Your task to perform on an android device: toggle airplane mode Image 0: 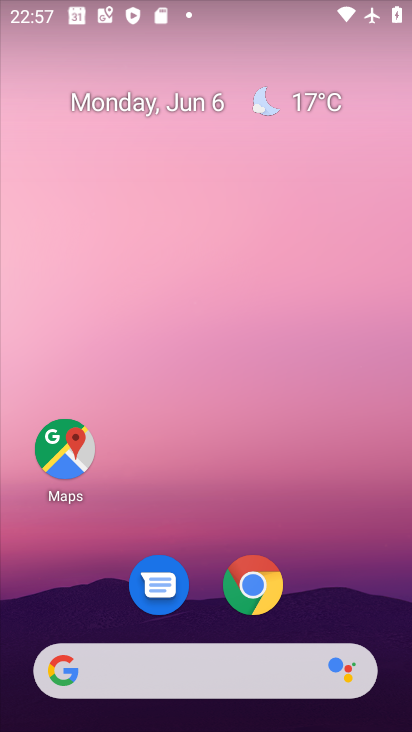
Step 0: drag from (220, 493) to (261, 0)
Your task to perform on an android device: toggle airplane mode Image 1: 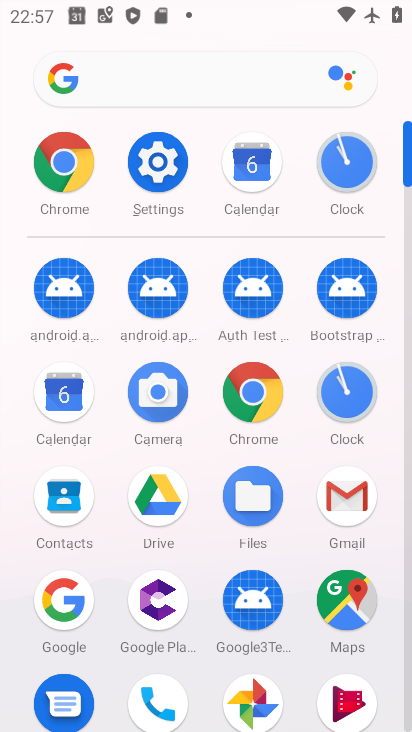
Step 1: click (167, 172)
Your task to perform on an android device: toggle airplane mode Image 2: 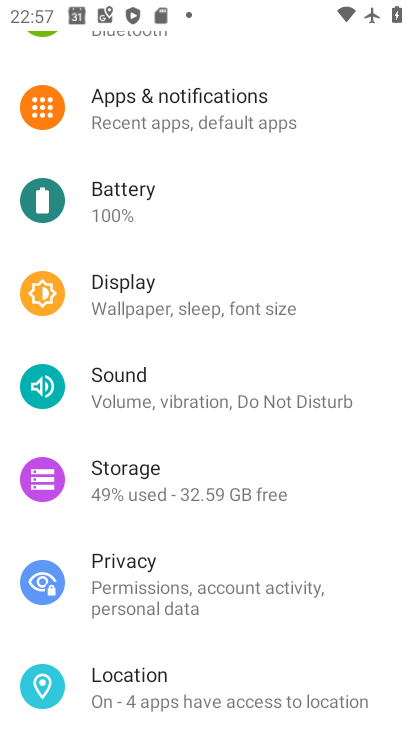
Step 2: drag from (210, 214) to (245, 558)
Your task to perform on an android device: toggle airplane mode Image 3: 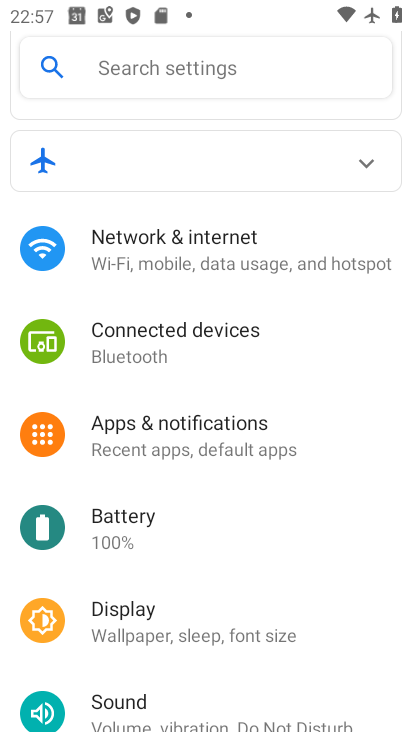
Step 3: click (220, 249)
Your task to perform on an android device: toggle airplane mode Image 4: 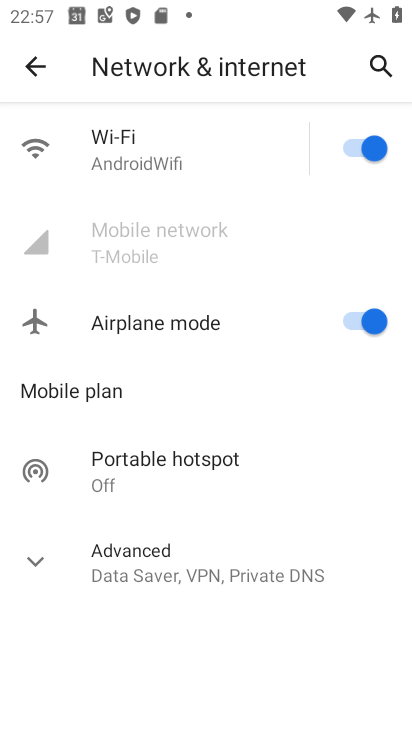
Step 4: click (342, 316)
Your task to perform on an android device: toggle airplane mode Image 5: 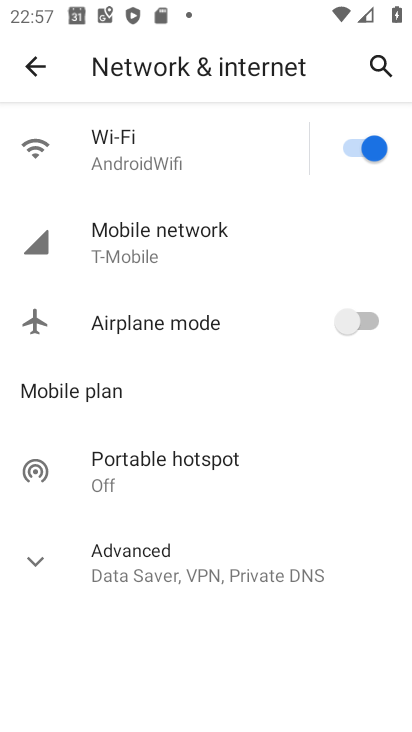
Step 5: task complete